Your task to perform on an android device: visit the assistant section in the google photos Image 0: 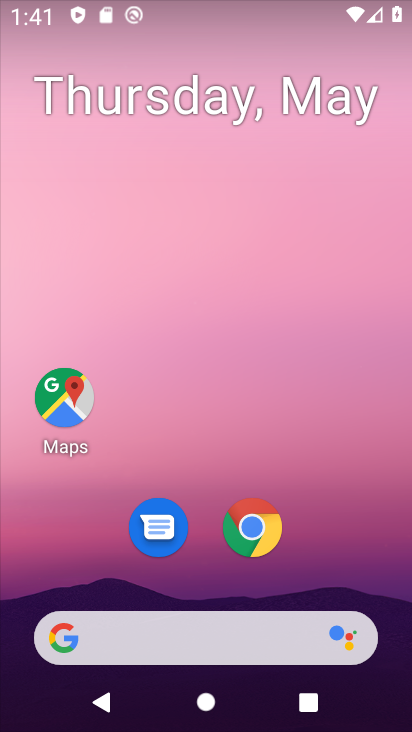
Step 0: drag from (361, 557) to (383, 154)
Your task to perform on an android device: visit the assistant section in the google photos Image 1: 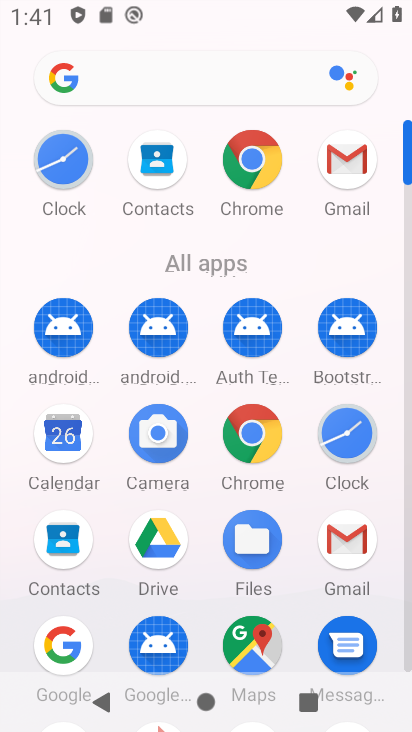
Step 1: click (407, 666)
Your task to perform on an android device: visit the assistant section in the google photos Image 2: 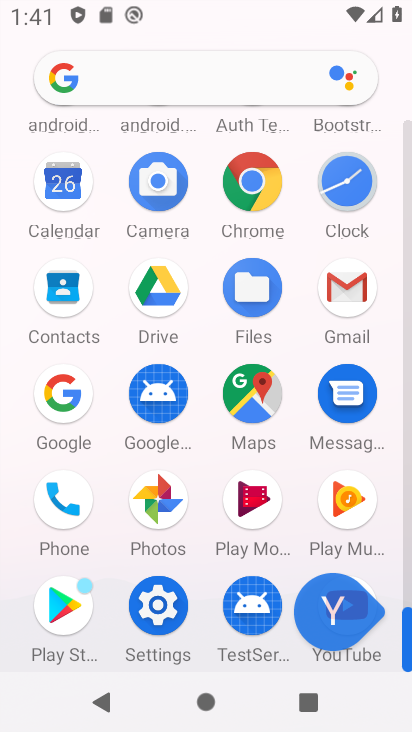
Step 2: click (407, 666)
Your task to perform on an android device: visit the assistant section in the google photos Image 3: 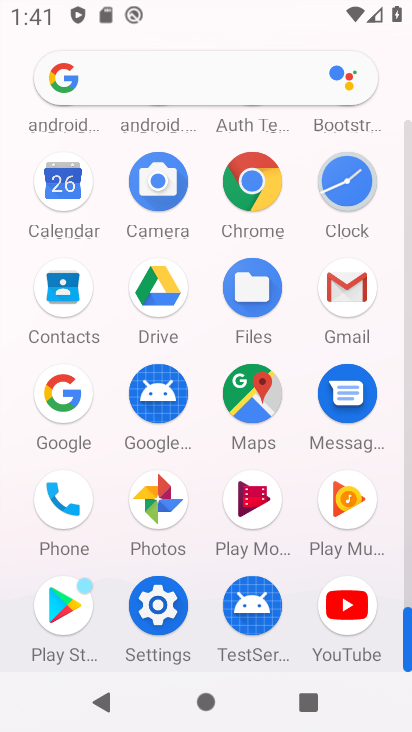
Step 3: click (407, 666)
Your task to perform on an android device: visit the assistant section in the google photos Image 4: 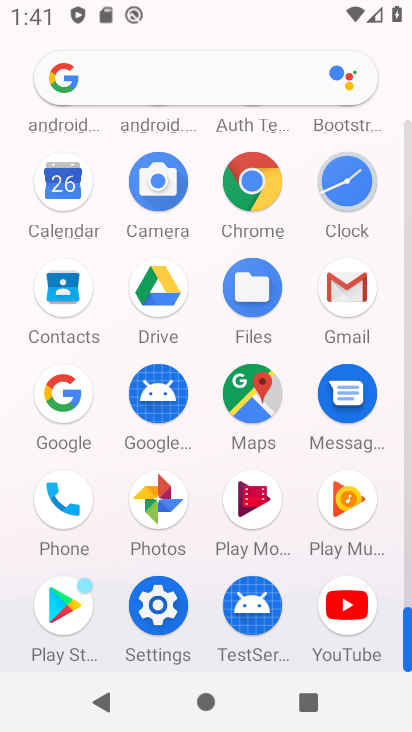
Step 4: click (178, 523)
Your task to perform on an android device: visit the assistant section in the google photos Image 5: 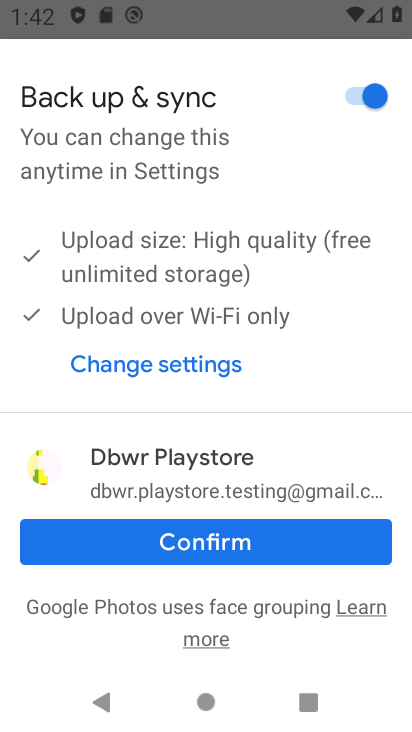
Step 5: click (198, 545)
Your task to perform on an android device: visit the assistant section in the google photos Image 6: 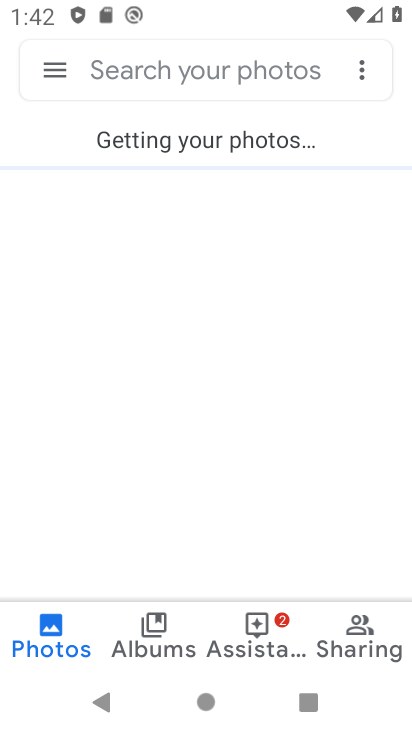
Step 6: click (256, 641)
Your task to perform on an android device: visit the assistant section in the google photos Image 7: 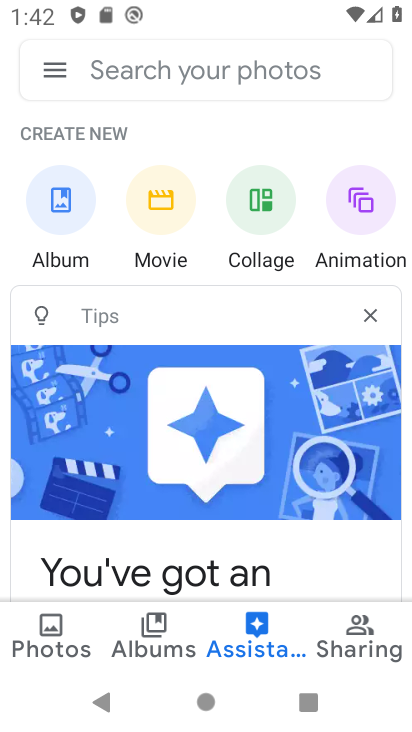
Step 7: task complete